Your task to perform on an android device: Is it going to rain this weekend? Image 0: 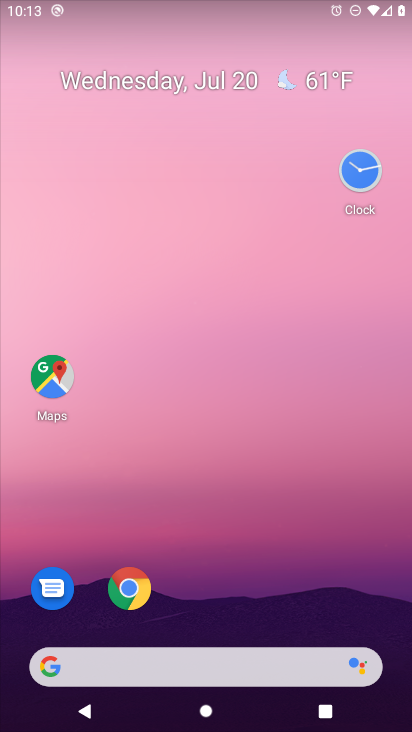
Step 0: click (72, 673)
Your task to perform on an android device: Is it going to rain this weekend? Image 1: 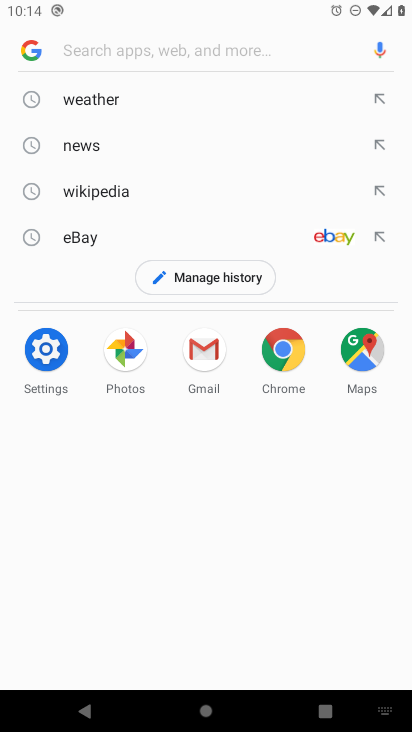
Step 1: type "Is it going to rain this weekend?"
Your task to perform on an android device: Is it going to rain this weekend? Image 2: 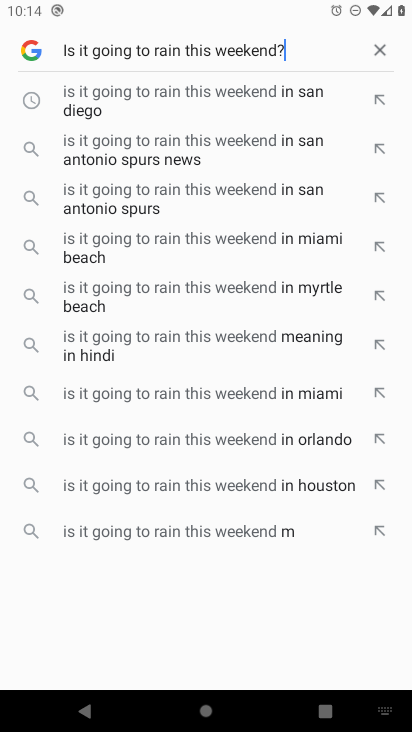
Step 2: type ""
Your task to perform on an android device: Is it going to rain this weekend? Image 3: 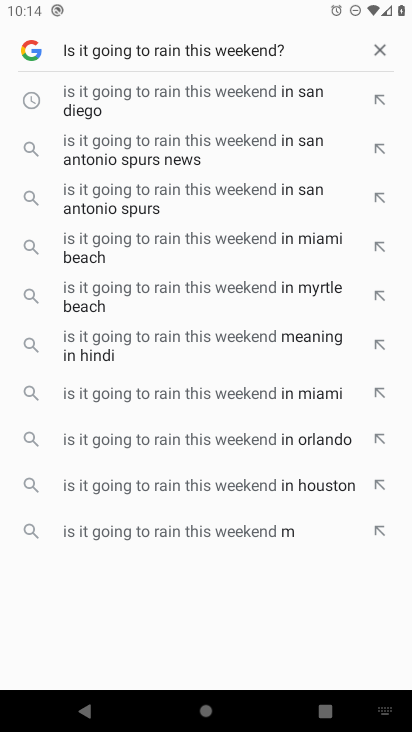
Step 3: type ""
Your task to perform on an android device: Is it going to rain this weekend? Image 4: 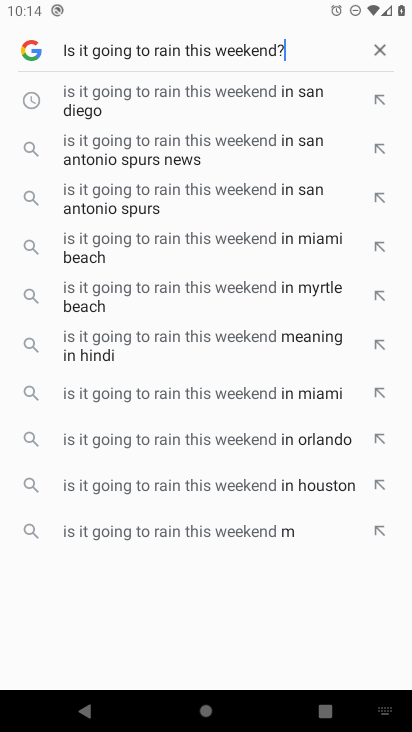
Step 4: type ""
Your task to perform on an android device: Is it going to rain this weekend? Image 5: 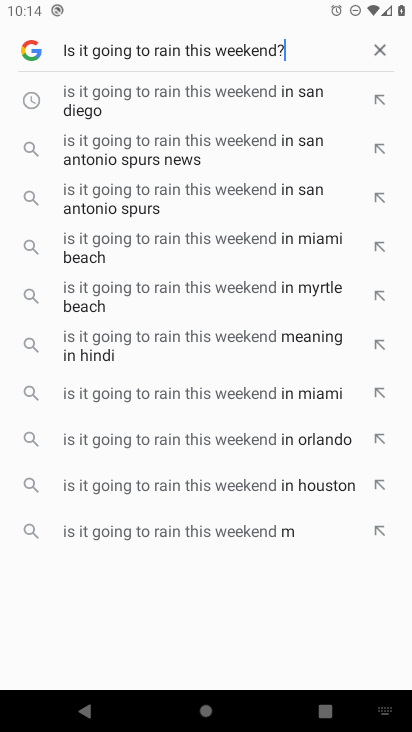
Step 5: task complete